Your task to perform on an android device: delete location history Image 0: 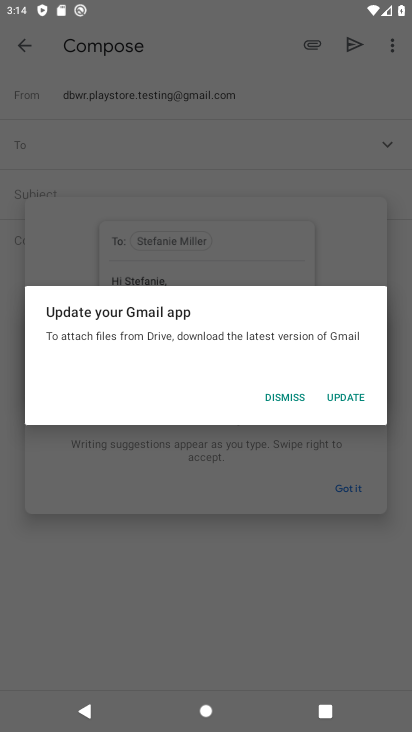
Step 0: press home button
Your task to perform on an android device: delete location history Image 1: 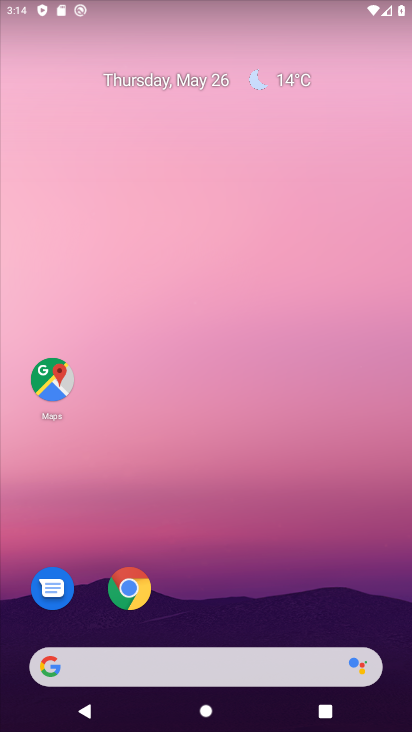
Step 1: drag from (292, 587) to (267, 129)
Your task to perform on an android device: delete location history Image 2: 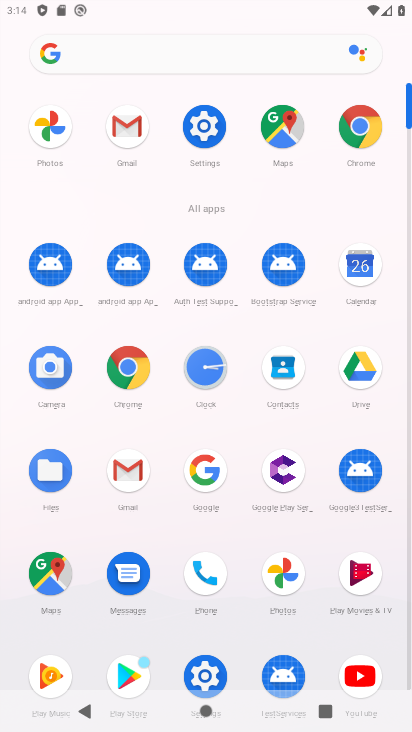
Step 2: click (217, 137)
Your task to perform on an android device: delete location history Image 3: 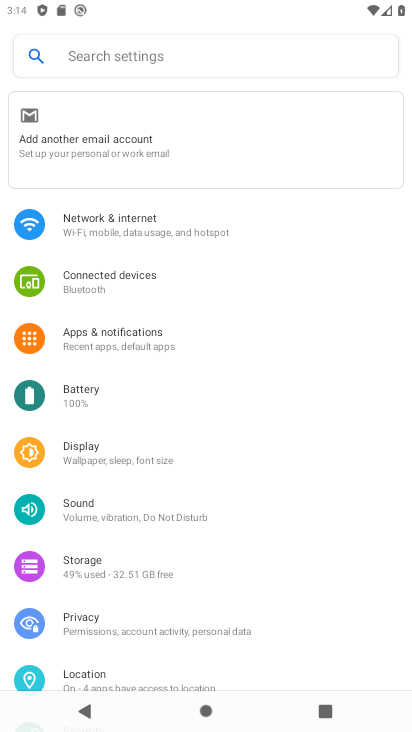
Step 3: drag from (178, 621) to (199, 352)
Your task to perform on an android device: delete location history Image 4: 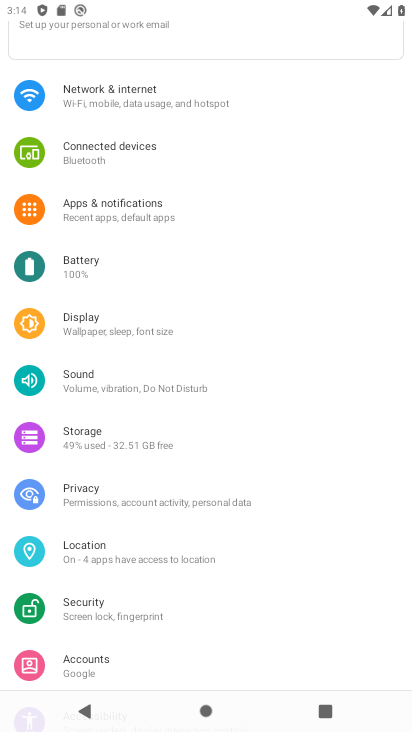
Step 4: click (138, 537)
Your task to perform on an android device: delete location history Image 5: 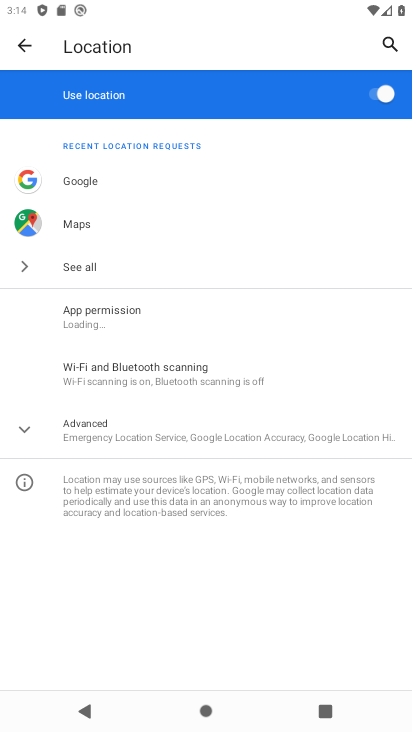
Step 5: click (183, 407)
Your task to perform on an android device: delete location history Image 6: 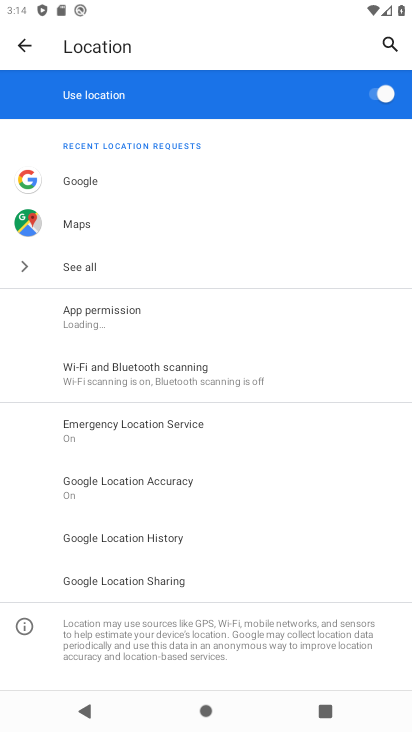
Step 6: click (223, 524)
Your task to perform on an android device: delete location history Image 7: 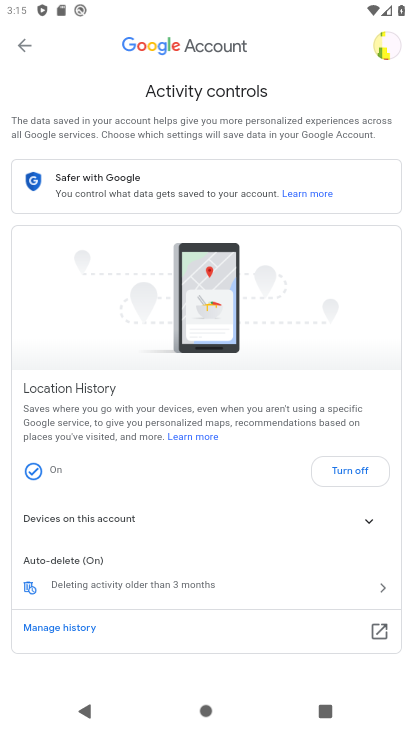
Step 7: click (63, 625)
Your task to perform on an android device: delete location history Image 8: 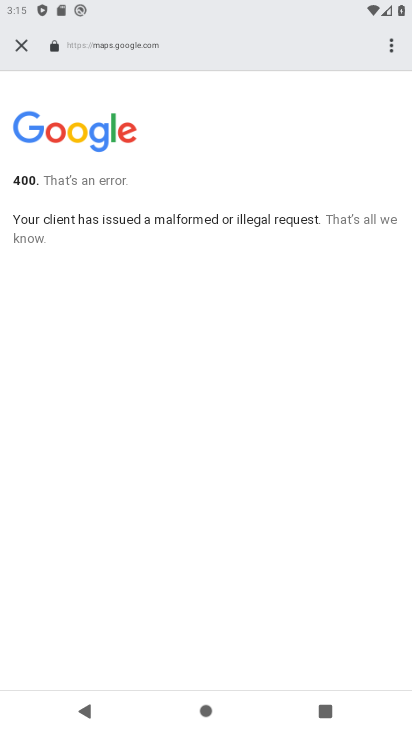
Step 8: task complete